Your task to perform on an android device: allow cookies in the chrome app Image 0: 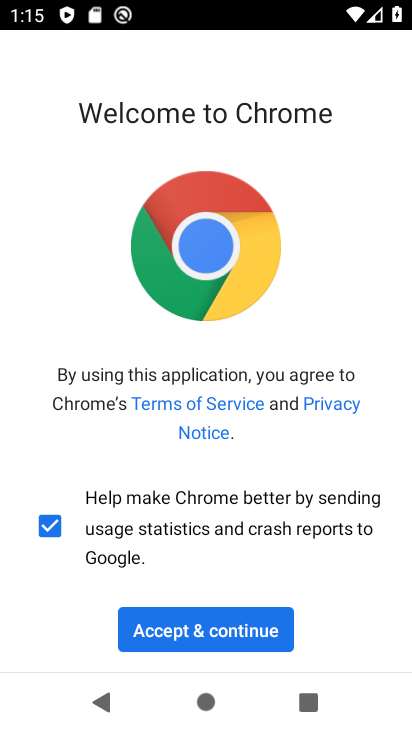
Step 0: press home button
Your task to perform on an android device: allow cookies in the chrome app Image 1: 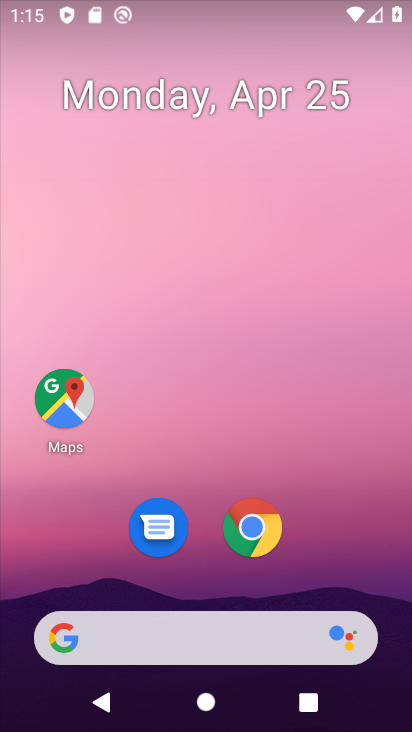
Step 1: drag from (391, 617) to (288, 89)
Your task to perform on an android device: allow cookies in the chrome app Image 2: 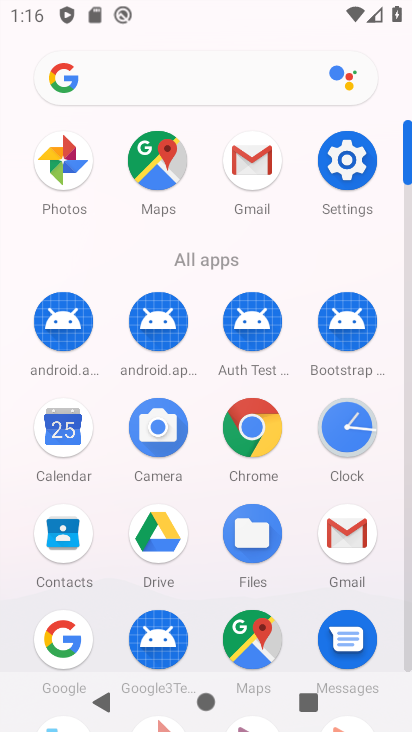
Step 2: click (259, 445)
Your task to perform on an android device: allow cookies in the chrome app Image 3: 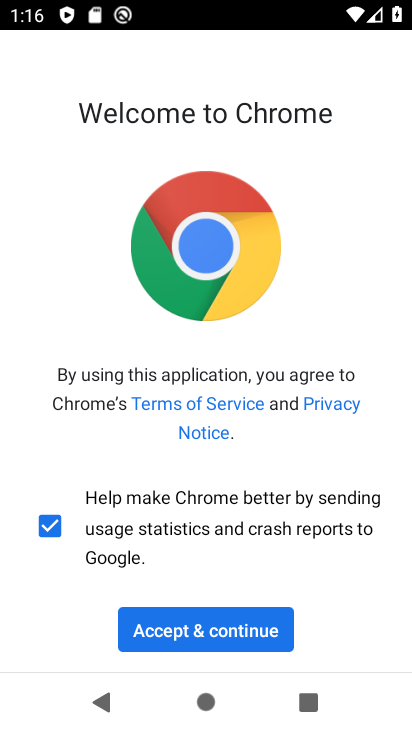
Step 3: click (220, 624)
Your task to perform on an android device: allow cookies in the chrome app Image 4: 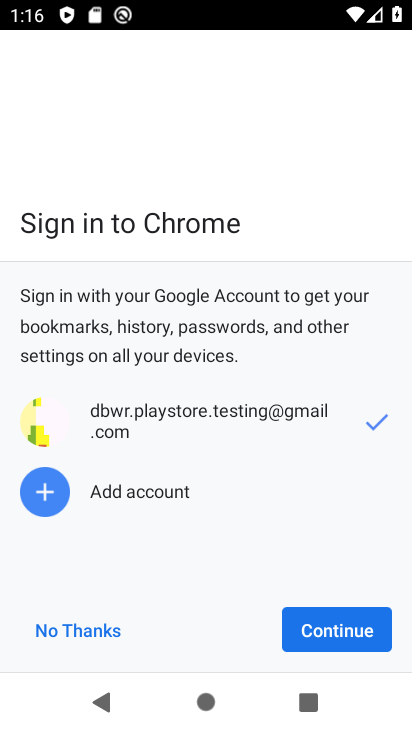
Step 4: click (359, 625)
Your task to perform on an android device: allow cookies in the chrome app Image 5: 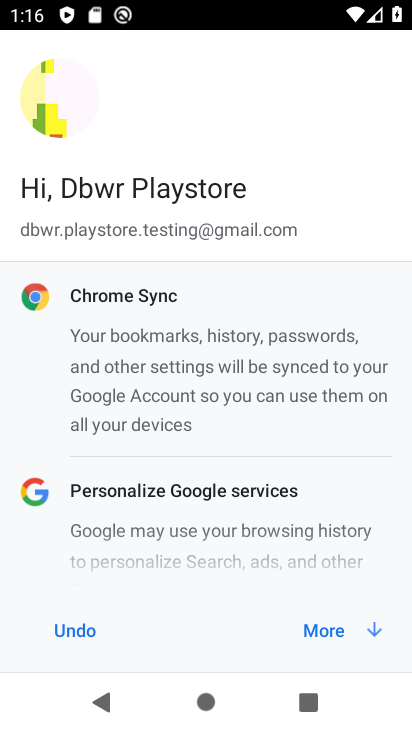
Step 5: click (339, 627)
Your task to perform on an android device: allow cookies in the chrome app Image 6: 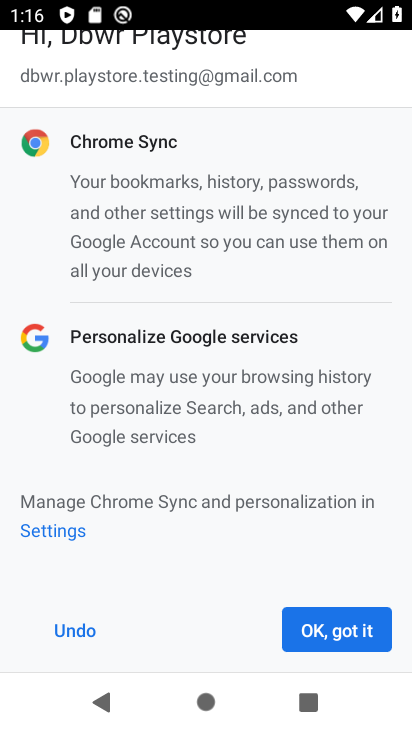
Step 6: click (339, 627)
Your task to perform on an android device: allow cookies in the chrome app Image 7: 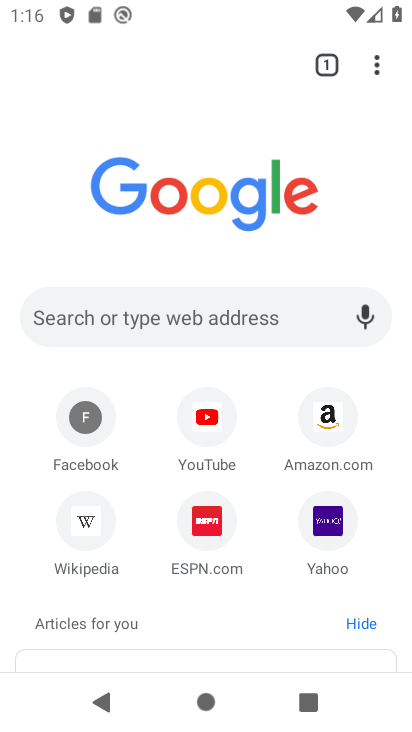
Step 7: click (375, 64)
Your task to perform on an android device: allow cookies in the chrome app Image 8: 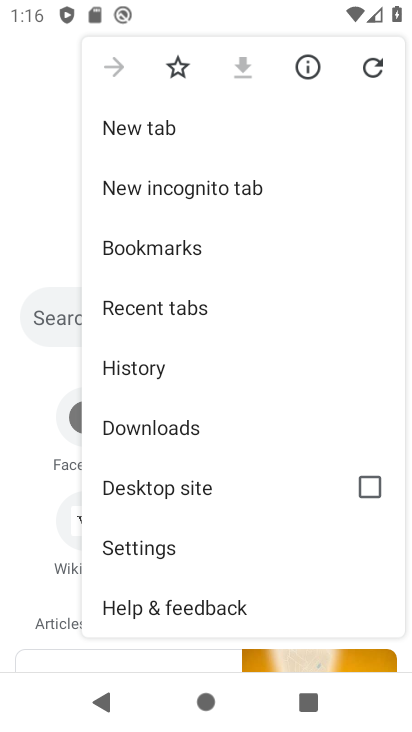
Step 8: click (192, 372)
Your task to perform on an android device: allow cookies in the chrome app Image 9: 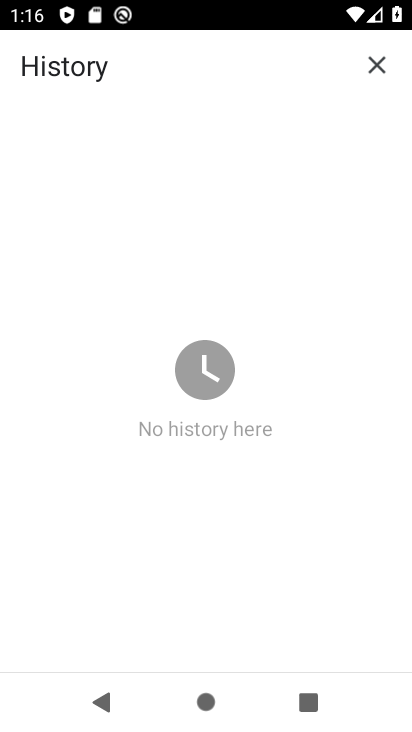
Step 9: task complete